Your task to perform on an android device: clear history in the chrome app Image 0: 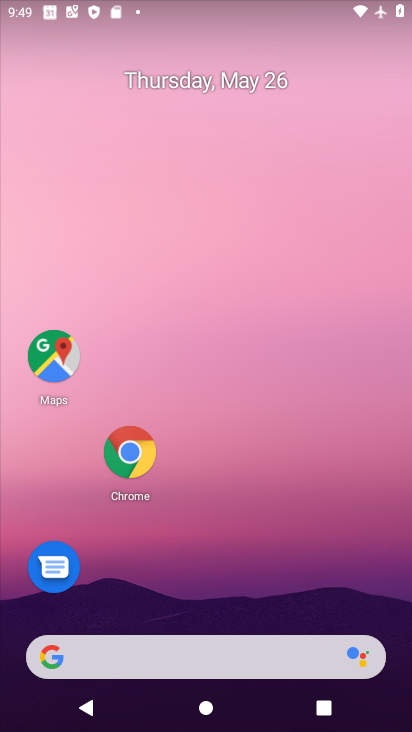
Step 0: click (129, 448)
Your task to perform on an android device: clear history in the chrome app Image 1: 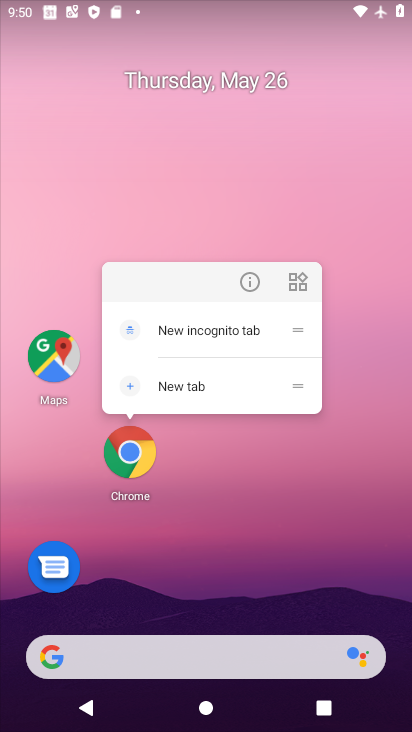
Step 1: click (138, 461)
Your task to perform on an android device: clear history in the chrome app Image 2: 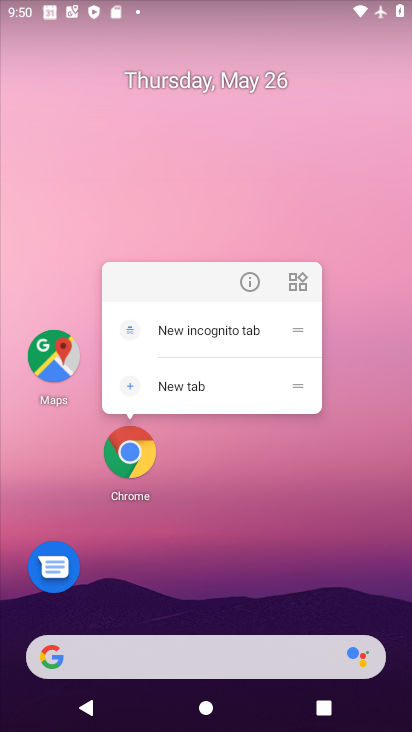
Step 2: click (131, 461)
Your task to perform on an android device: clear history in the chrome app Image 3: 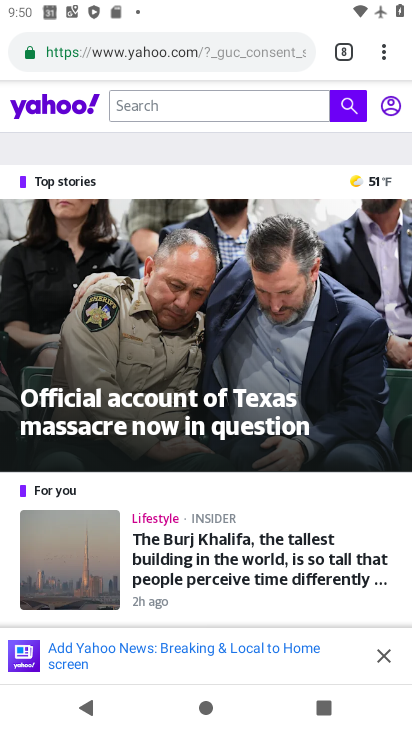
Step 3: drag from (381, 46) to (280, 290)
Your task to perform on an android device: clear history in the chrome app Image 4: 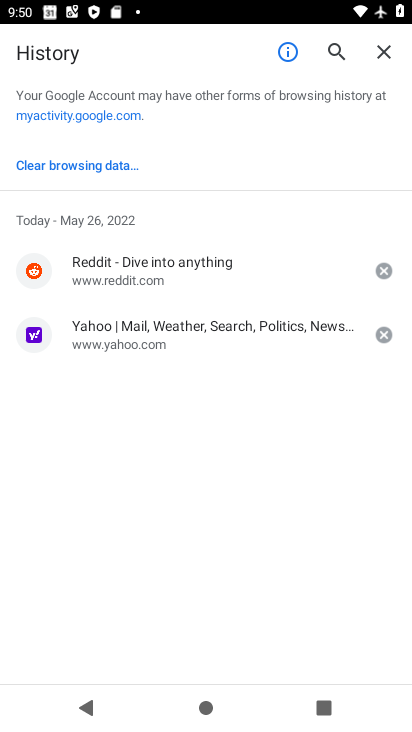
Step 4: click (121, 166)
Your task to perform on an android device: clear history in the chrome app Image 5: 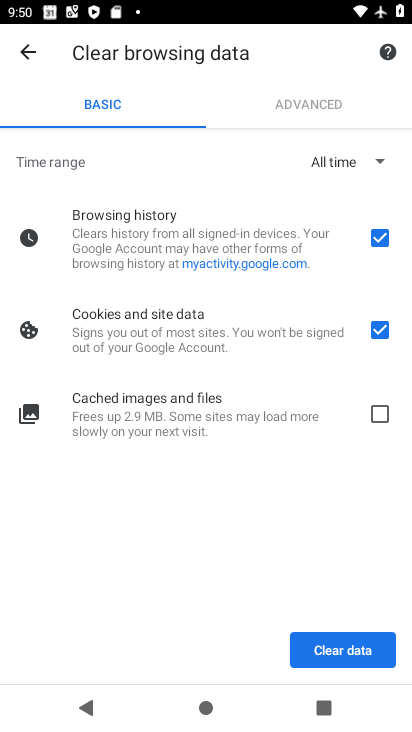
Step 5: click (379, 412)
Your task to perform on an android device: clear history in the chrome app Image 6: 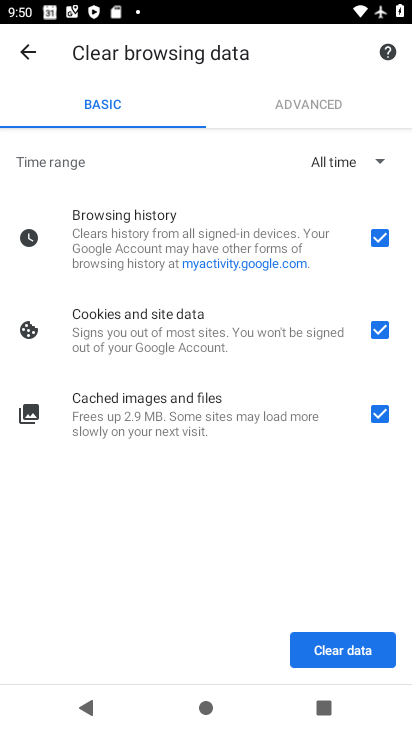
Step 6: click (341, 654)
Your task to perform on an android device: clear history in the chrome app Image 7: 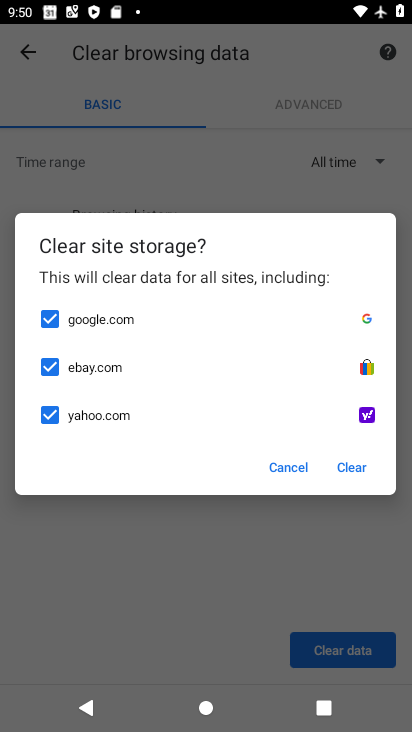
Step 7: click (354, 469)
Your task to perform on an android device: clear history in the chrome app Image 8: 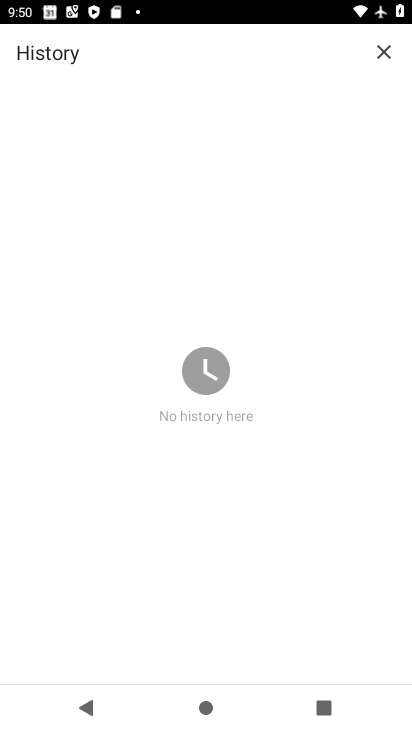
Step 8: task complete